Your task to perform on an android device: turn on location history Image 0: 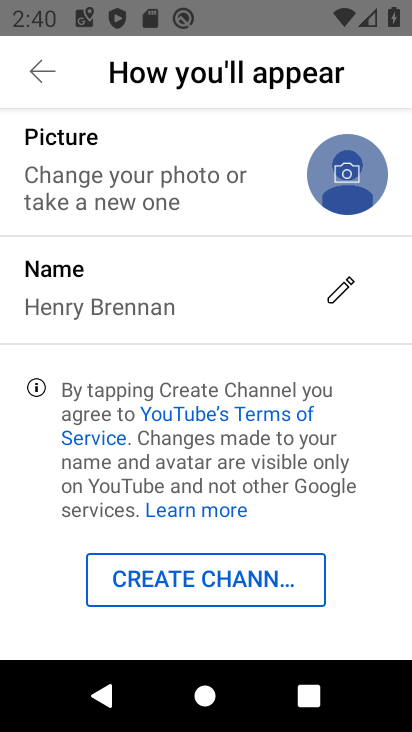
Step 0: press home button
Your task to perform on an android device: turn on location history Image 1: 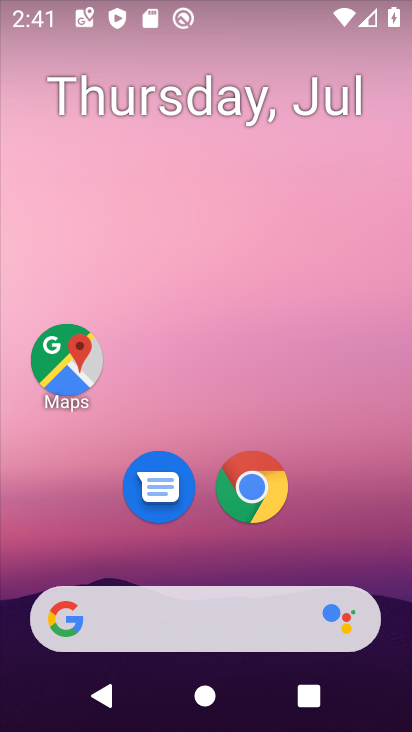
Step 1: drag from (359, 533) to (358, 200)
Your task to perform on an android device: turn on location history Image 2: 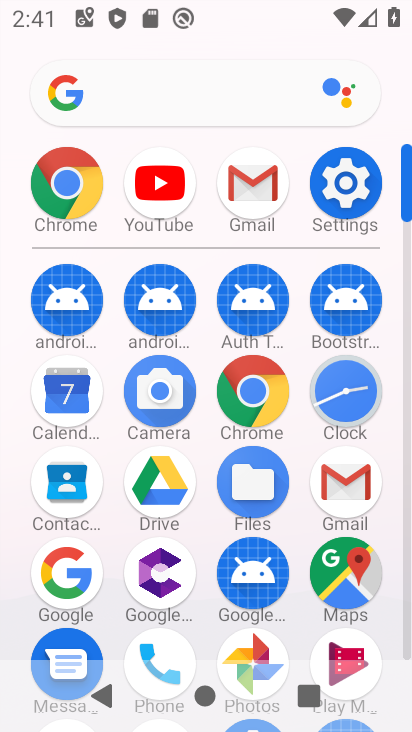
Step 2: click (354, 176)
Your task to perform on an android device: turn on location history Image 3: 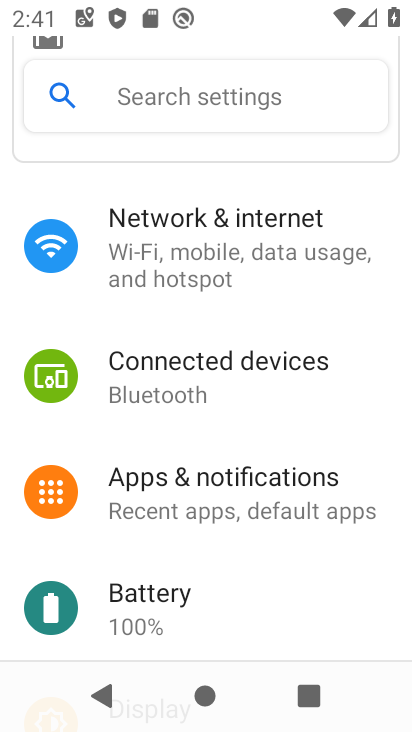
Step 3: drag from (352, 439) to (355, 336)
Your task to perform on an android device: turn on location history Image 4: 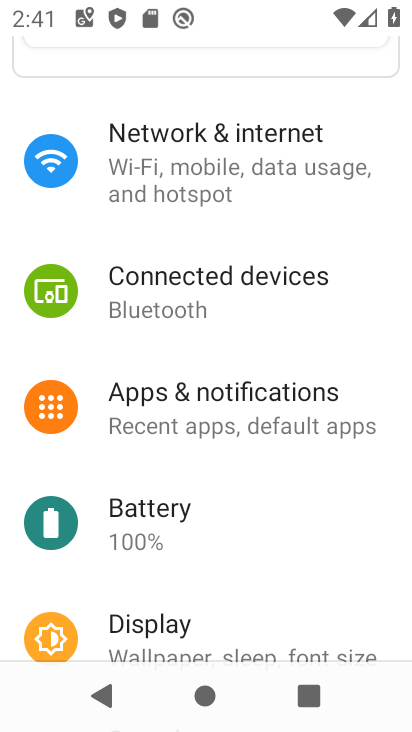
Step 4: drag from (362, 477) to (361, 368)
Your task to perform on an android device: turn on location history Image 5: 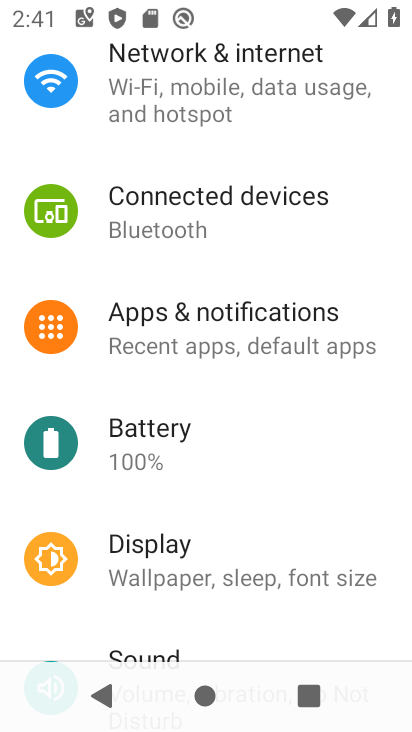
Step 5: drag from (343, 450) to (345, 336)
Your task to perform on an android device: turn on location history Image 6: 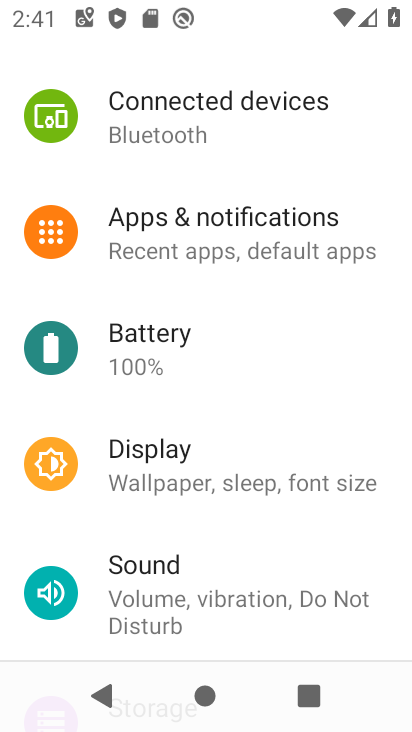
Step 6: drag from (353, 508) to (353, 403)
Your task to perform on an android device: turn on location history Image 7: 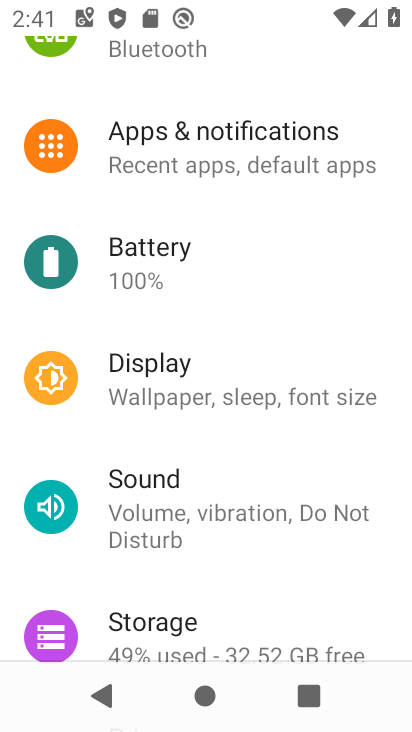
Step 7: drag from (365, 551) to (363, 454)
Your task to perform on an android device: turn on location history Image 8: 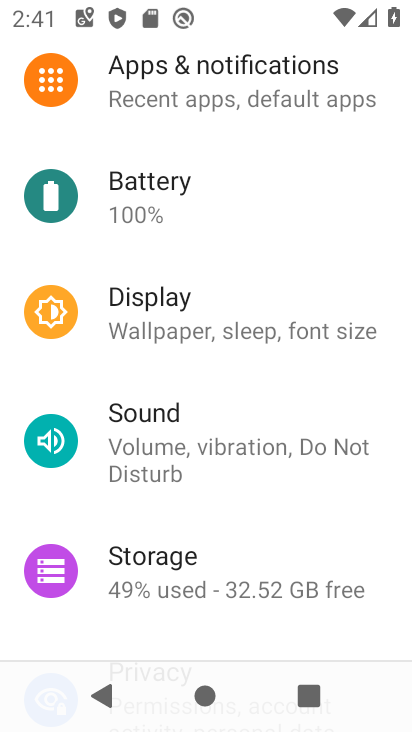
Step 8: drag from (377, 594) to (374, 435)
Your task to perform on an android device: turn on location history Image 9: 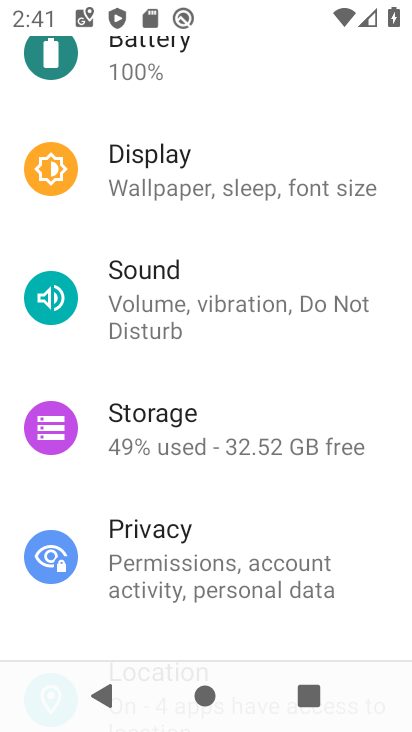
Step 9: drag from (364, 515) to (364, 444)
Your task to perform on an android device: turn on location history Image 10: 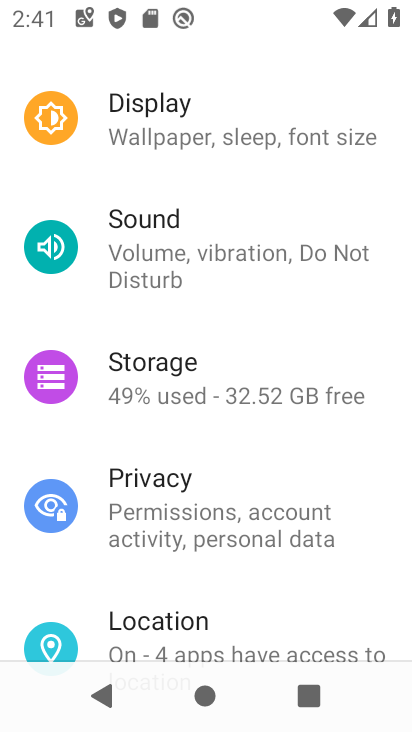
Step 10: drag from (367, 547) to (369, 430)
Your task to perform on an android device: turn on location history Image 11: 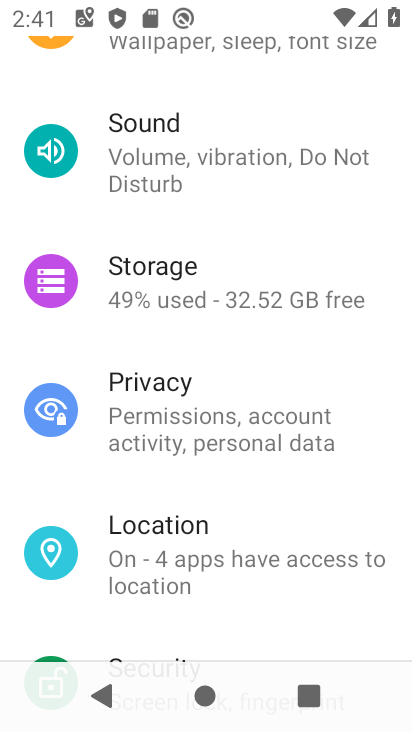
Step 11: drag from (378, 517) to (379, 417)
Your task to perform on an android device: turn on location history Image 12: 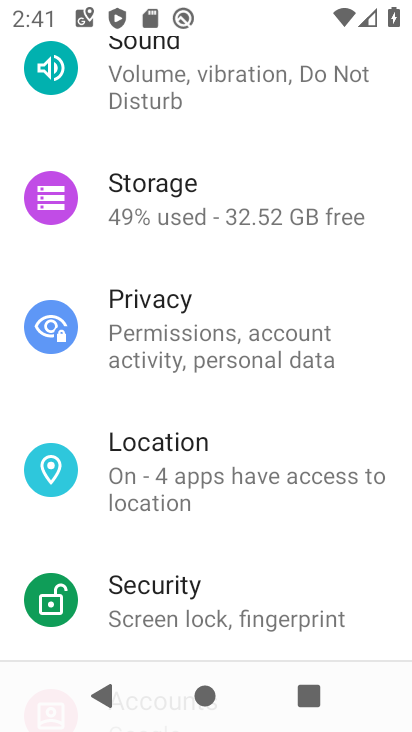
Step 12: drag from (377, 531) to (378, 416)
Your task to perform on an android device: turn on location history Image 13: 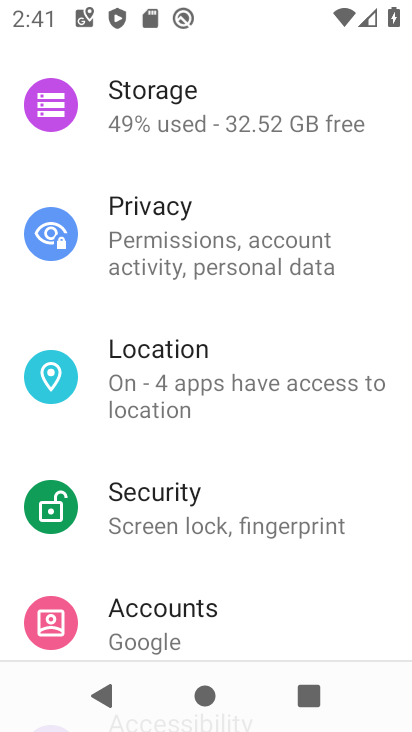
Step 13: click (290, 408)
Your task to perform on an android device: turn on location history Image 14: 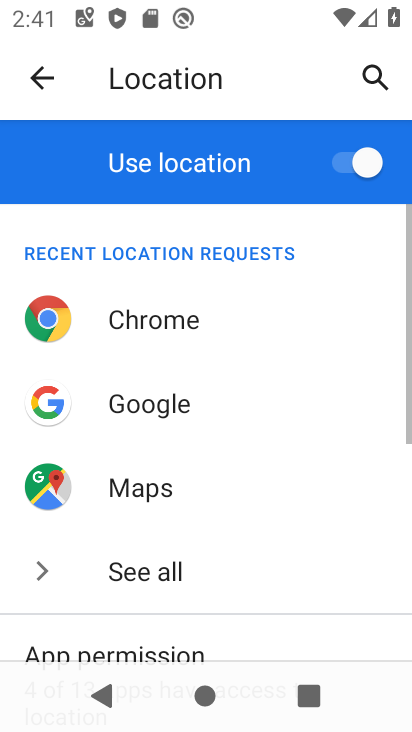
Step 14: drag from (323, 530) to (343, 395)
Your task to perform on an android device: turn on location history Image 15: 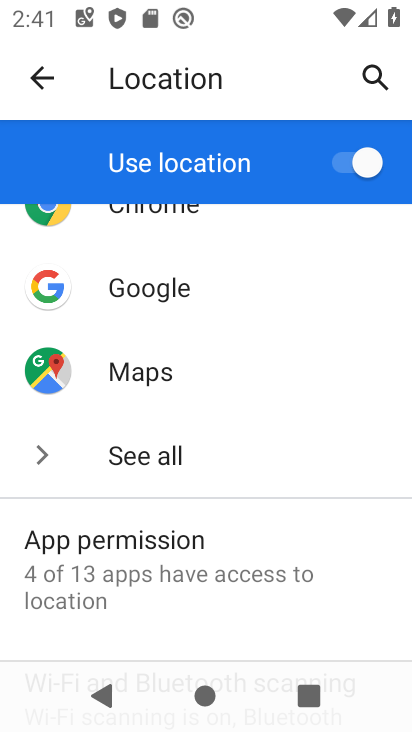
Step 15: drag from (323, 589) to (347, 475)
Your task to perform on an android device: turn on location history Image 16: 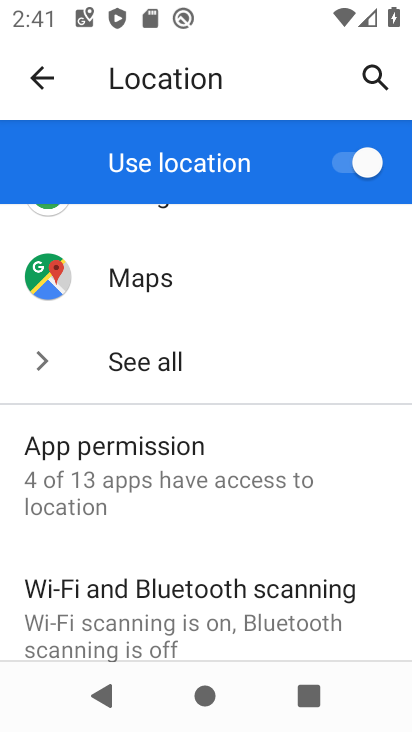
Step 16: drag from (359, 625) to (362, 356)
Your task to perform on an android device: turn on location history Image 17: 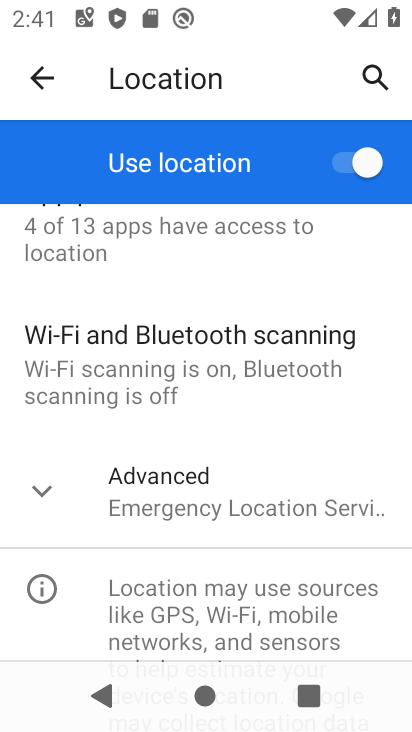
Step 17: drag from (348, 499) to (348, 396)
Your task to perform on an android device: turn on location history Image 18: 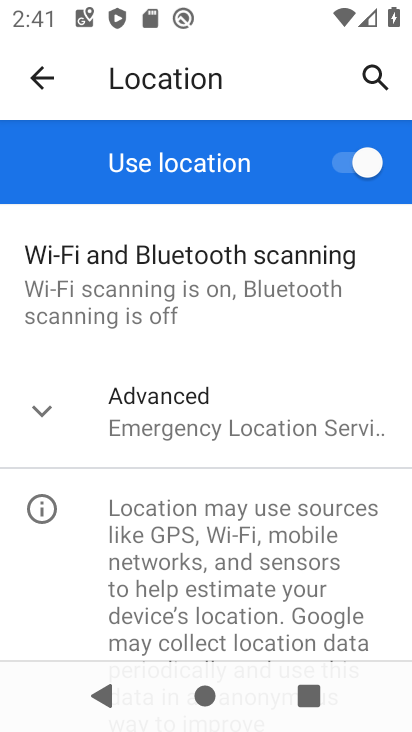
Step 18: click (278, 453)
Your task to perform on an android device: turn on location history Image 19: 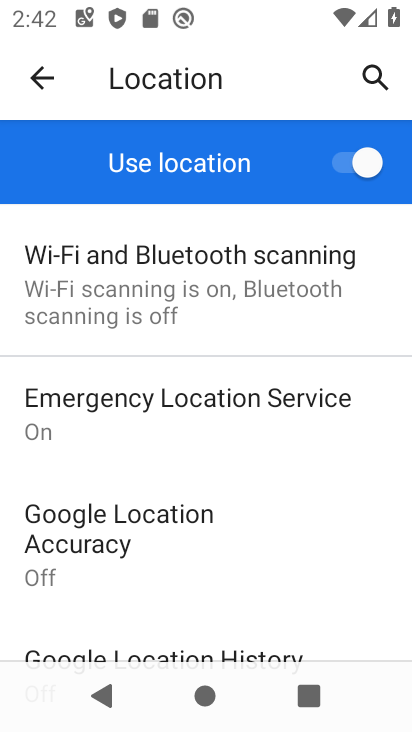
Step 19: drag from (294, 523) to (297, 418)
Your task to perform on an android device: turn on location history Image 20: 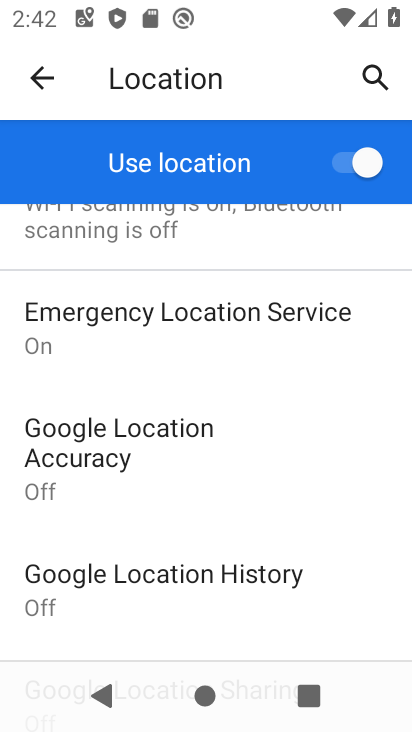
Step 20: drag from (352, 601) to (349, 478)
Your task to perform on an android device: turn on location history Image 21: 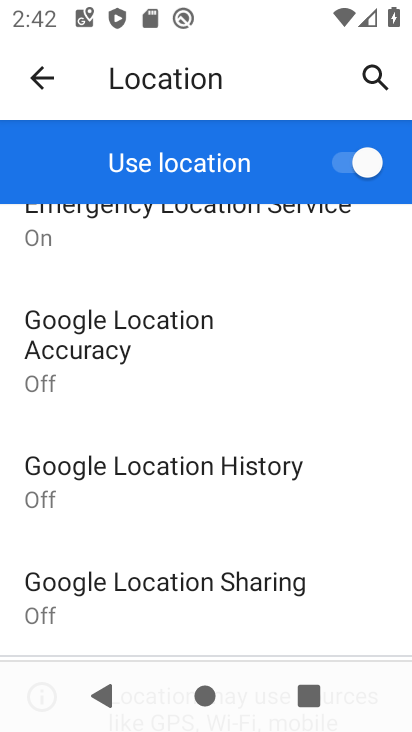
Step 21: click (254, 477)
Your task to perform on an android device: turn on location history Image 22: 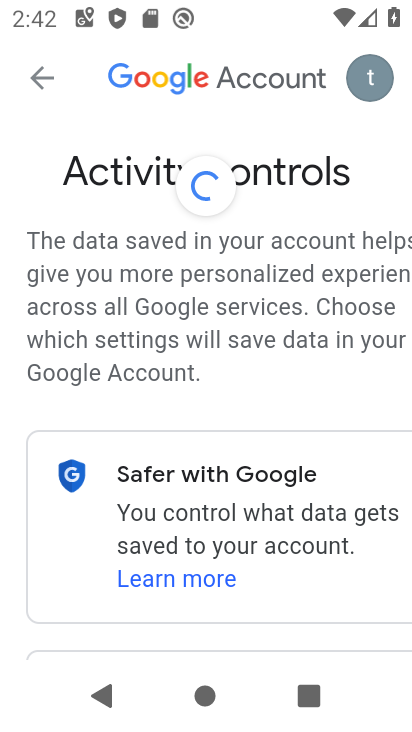
Step 22: task complete